Your task to perform on an android device: toggle priority inbox in the gmail app Image 0: 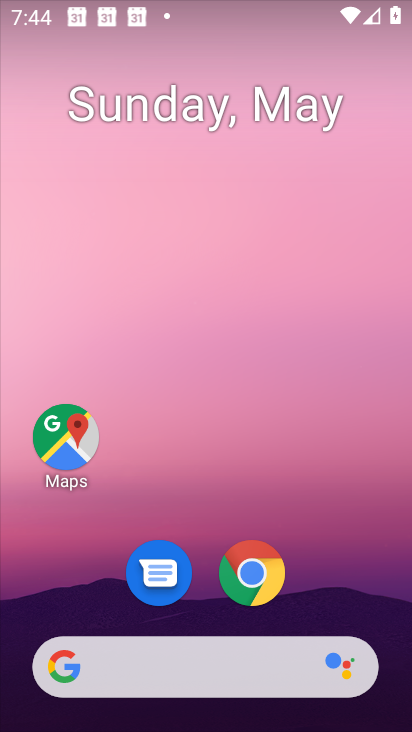
Step 0: click (202, 1)
Your task to perform on an android device: toggle priority inbox in the gmail app Image 1: 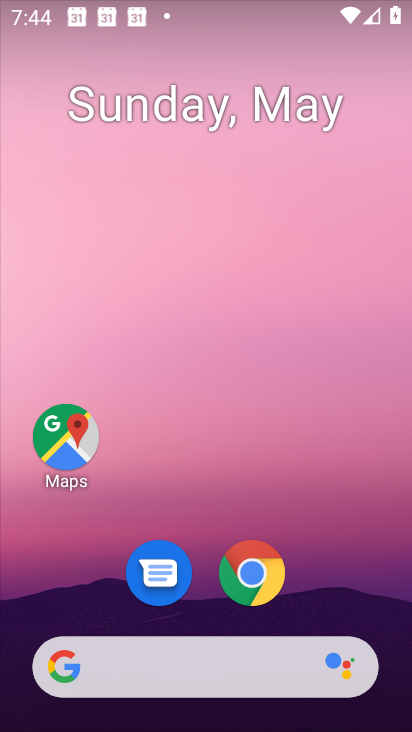
Step 1: drag from (212, 491) to (241, 28)
Your task to perform on an android device: toggle priority inbox in the gmail app Image 2: 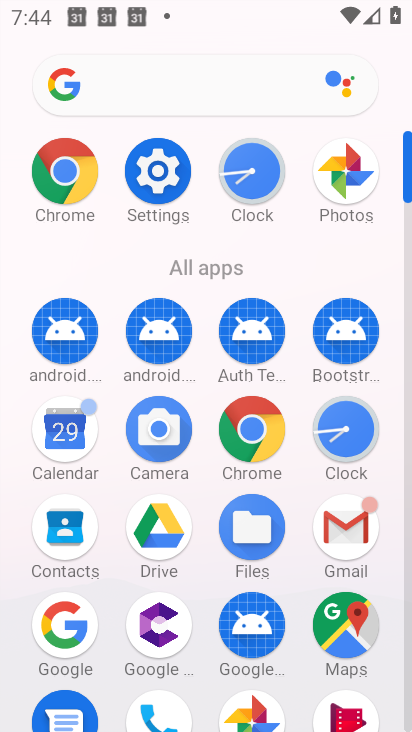
Step 2: click (348, 521)
Your task to perform on an android device: toggle priority inbox in the gmail app Image 3: 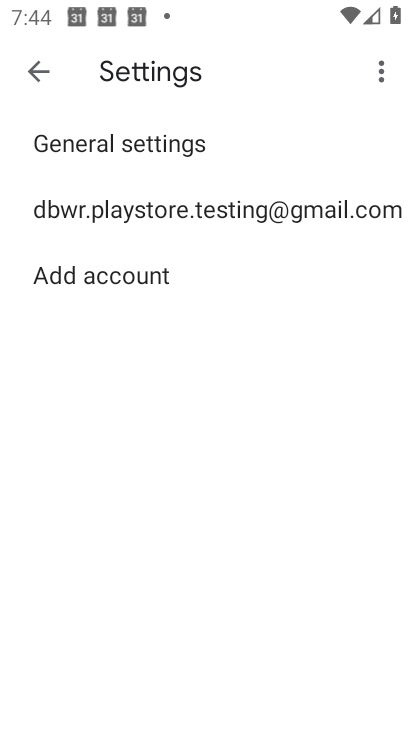
Step 3: click (297, 204)
Your task to perform on an android device: toggle priority inbox in the gmail app Image 4: 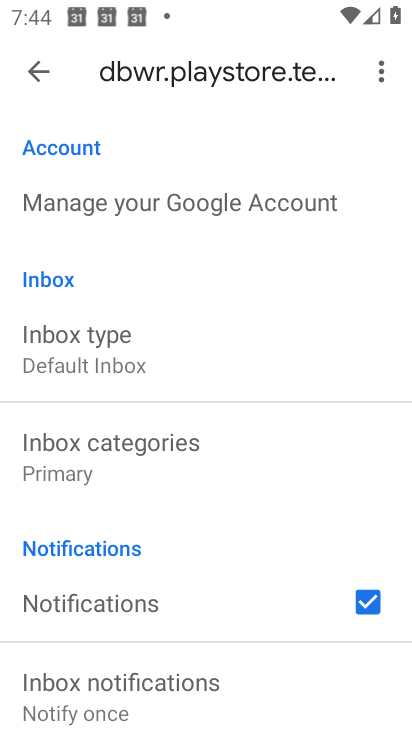
Step 4: click (126, 351)
Your task to perform on an android device: toggle priority inbox in the gmail app Image 5: 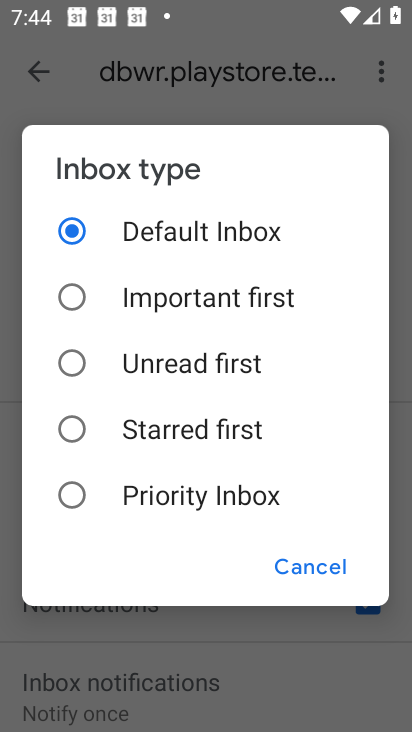
Step 5: click (68, 490)
Your task to perform on an android device: toggle priority inbox in the gmail app Image 6: 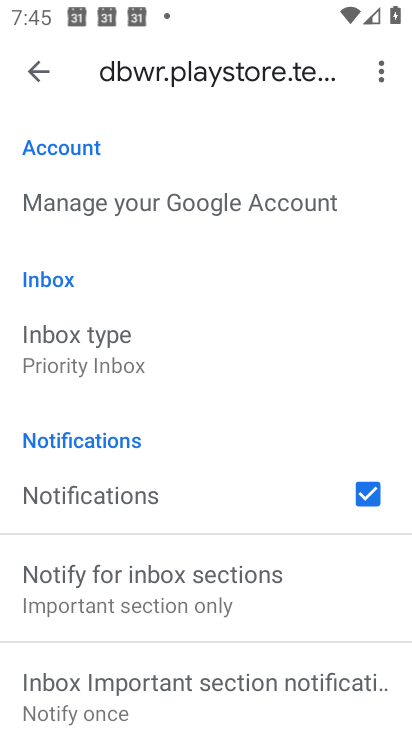
Step 6: task complete